Your task to perform on an android device: Open Chrome and go to the settings page Image 0: 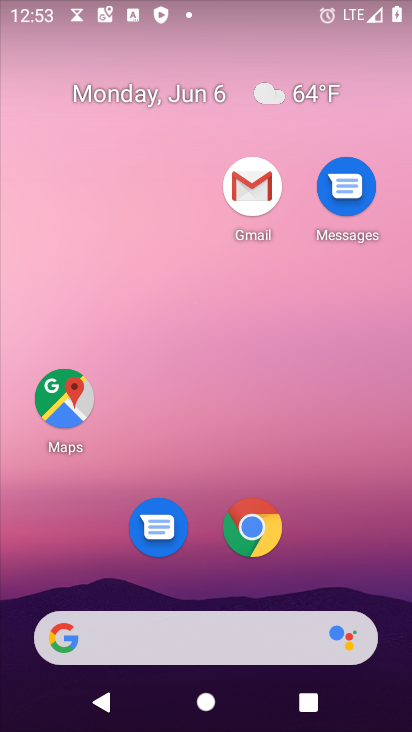
Step 0: click (267, 534)
Your task to perform on an android device: Open Chrome and go to the settings page Image 1: 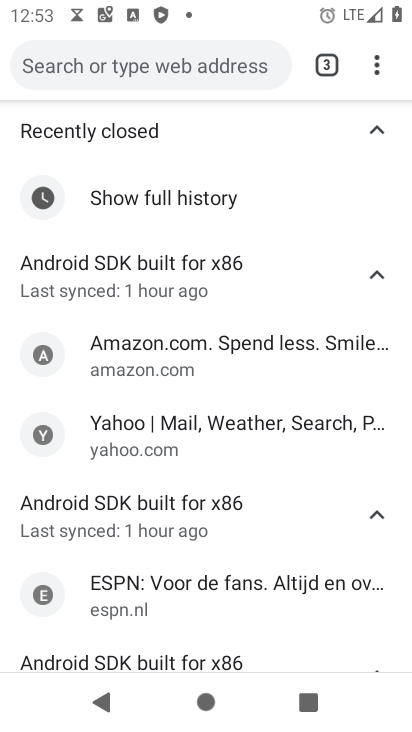
Step 1: click (384, 64)
Your task to perform on an android device: Open Chrome and go to the settings page Image 2: 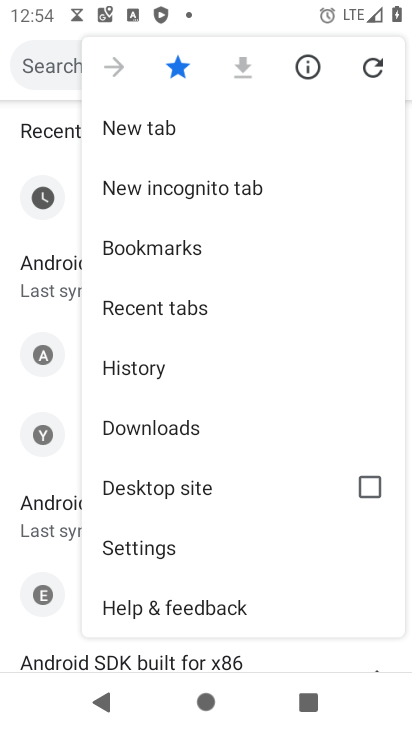
Step 2: click (184, 543)
Your task to perform on an android device: Open Chrome and go to the settings page Image 3: 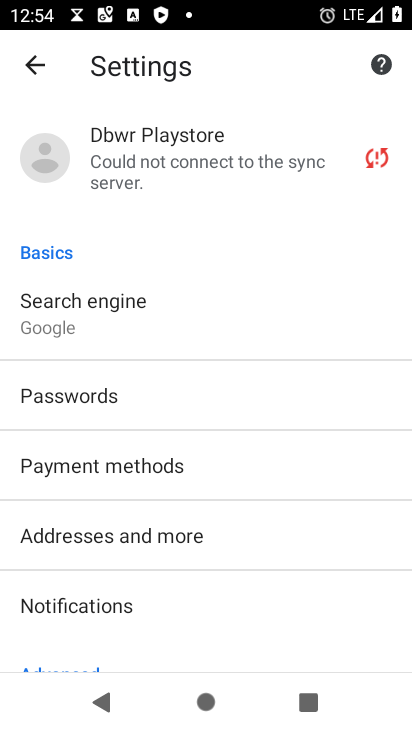
Step 3: task complete